Your task to perform on an android device: delete a single message in the gmail app Image 0: 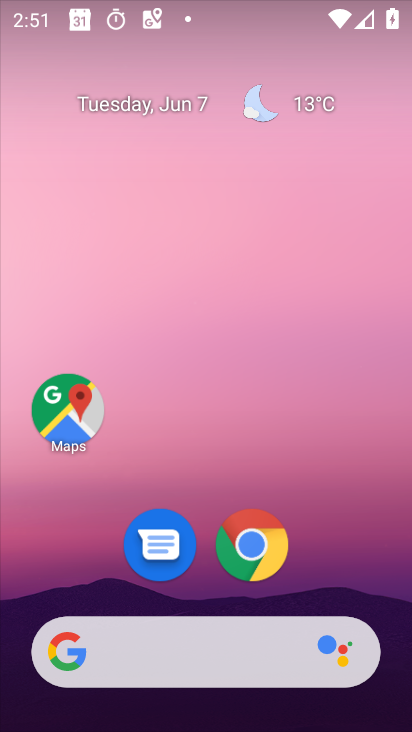
Step 0: drag from (340, 489) to (243, 28)
Your task to perform on an android device: delete a single message in the gmail app Image 1: 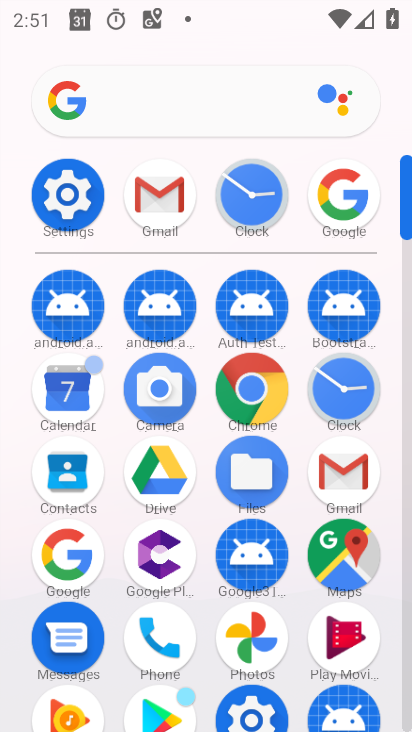
Step 1: click (165, 173)
Your task to perform on an android device: delete a single message in the gmail app Image 2: 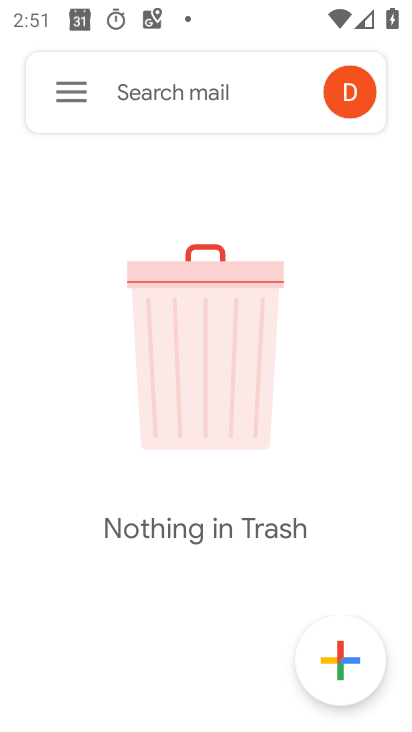
Step 2: click (74, 93)
Your task to perform on an android device: delete a single message in the gmail app Image 3: 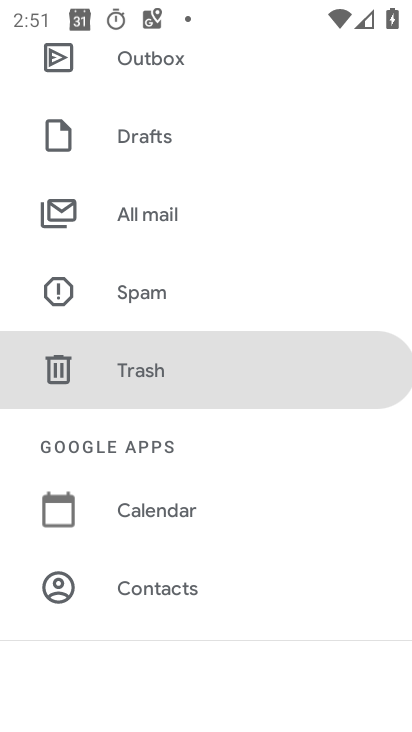
Step 3: click (210, 206)
Your task to perform on an android device: delete a single message in the gmail app Image 4: 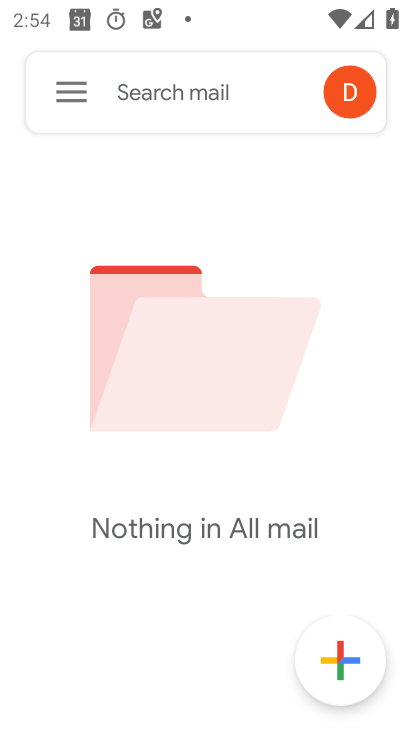
Step 4: task complete